Your task to perform on an android device: check out phone information Image 0: 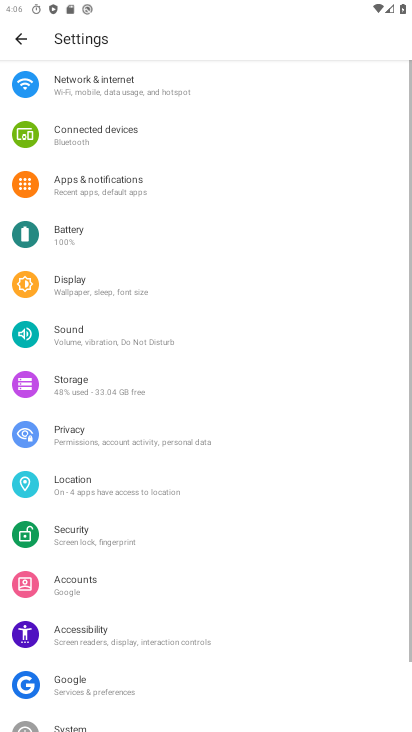
Step 0: press home button
Your task to perform on an android device: check out phone information Image 1: 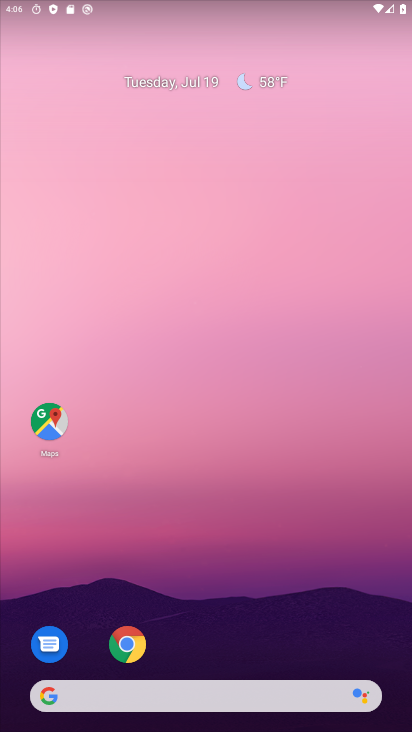
Step 1: drag from (232, 648) to (242, 129)
Your task to perform on an android device: check out phone information Image 2: 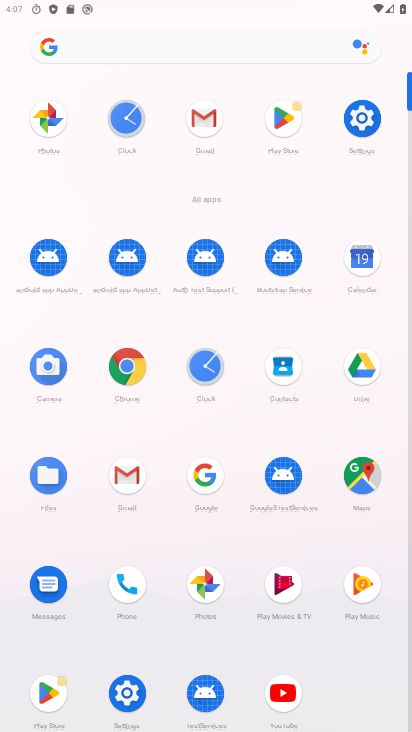
Step 2: click (140, 587)
Your task to perform on an android device: check out phone information Image 3: 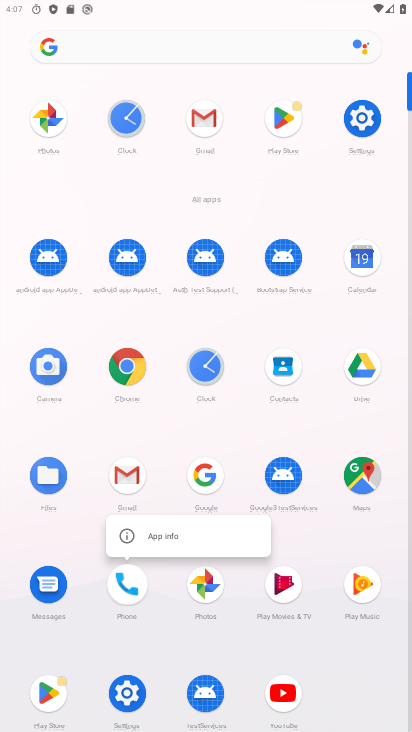
Step 3: click (179, 509)
Your task to perform on an android device: check out phone information Image 4: 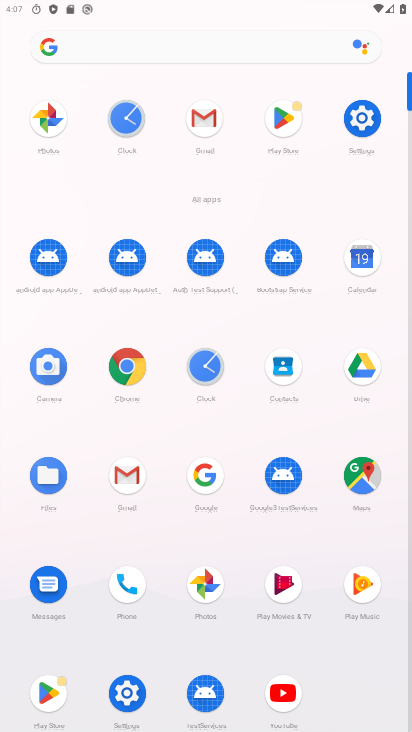
Step 4: click (185, 527)
Your task to perform on an android device: check out phone information Image 5: 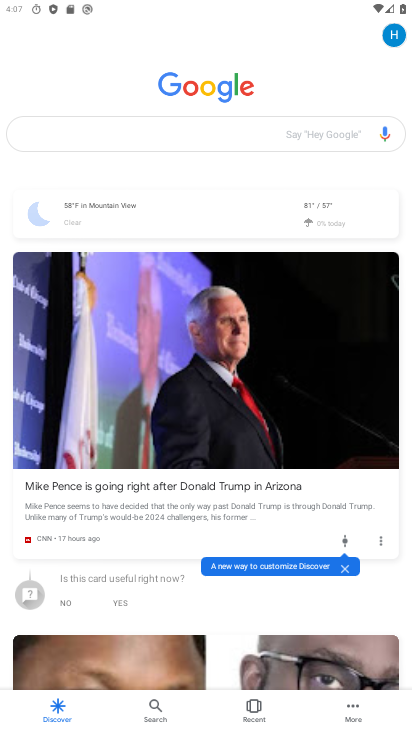
Step 5: press home button
Your task to perform on an android device: check out phone information Image 6: 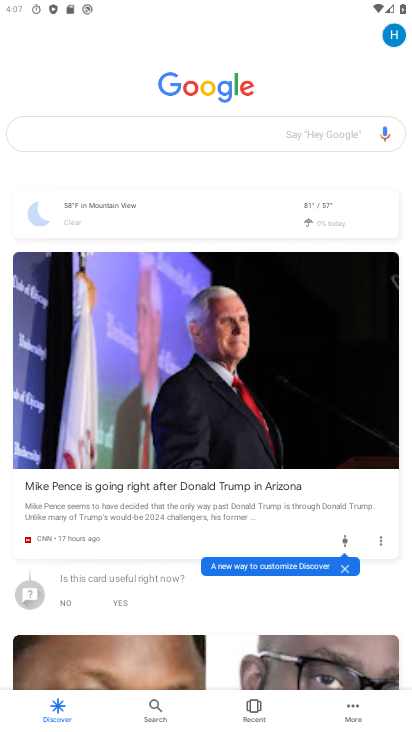
Step 6: press home button
Your task to perform on an android device: check out phone information Image 7: 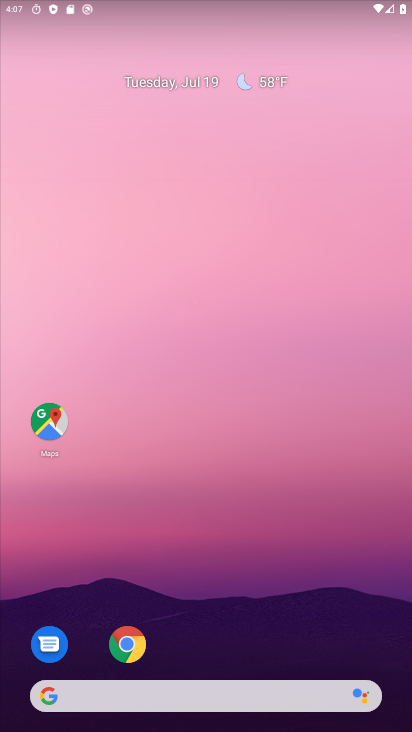
Step 7: drag from (224, 649) to (231, 108)
Your task to perform on an android device: check out phone information Image 8: 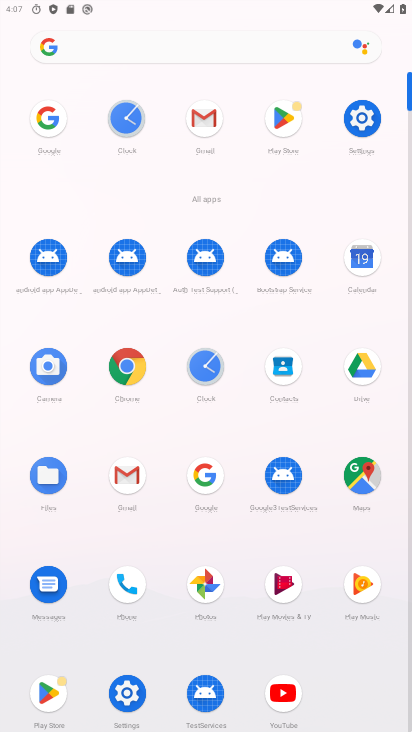
Step 8: click (130, 586)
Your task to perform on an android device: check out phone information Image 9: 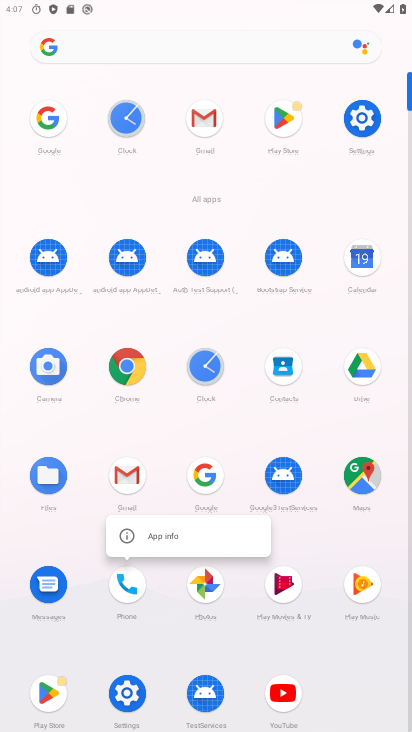
Step 9: click (171, 533)
Your task to perform on an android device: check out phone information Image 10: 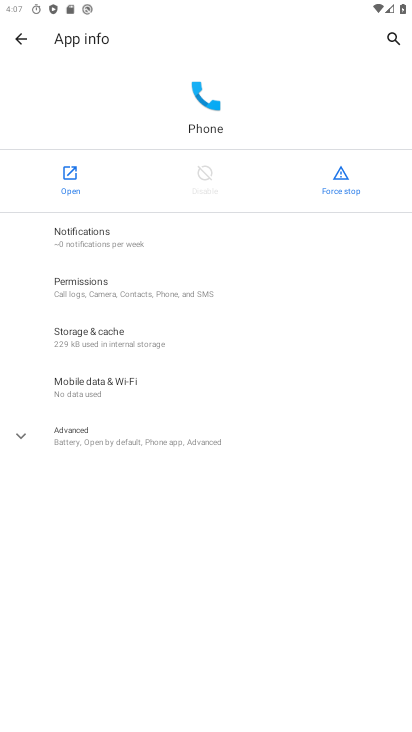
Step 10: task complete